Your task to perform on an android device: Open Maps and search for coffee Image 0: 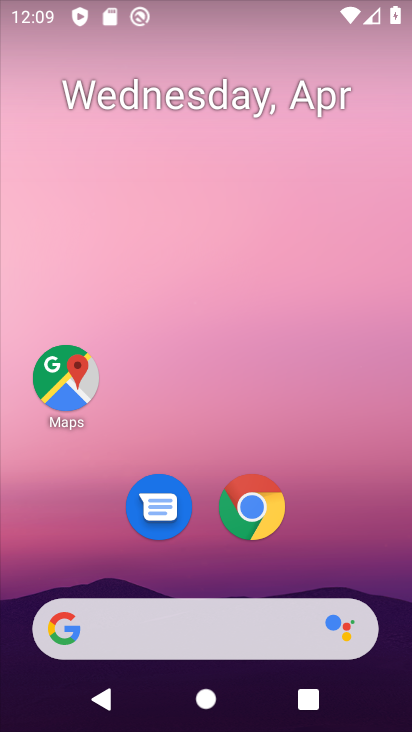
Step 0: click (75, 380)
Your task to perform on an android device: Open Maps and search for coffee Image 1: 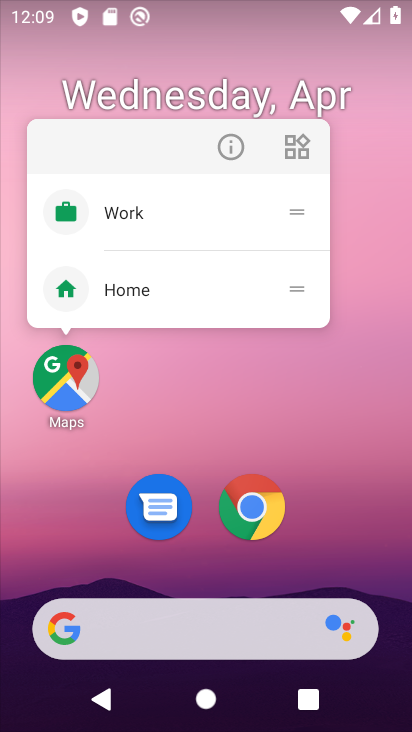
Step 1: click (75, 380)
Your task to perform on an android device: Open Maps and search for coffee Image 2: 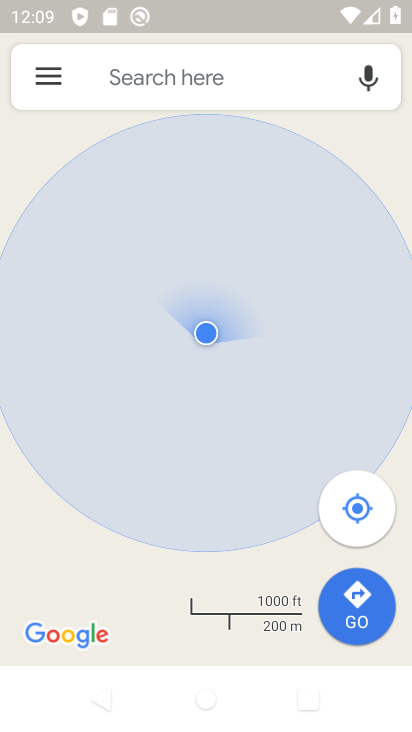
Step 2: click (275, 79)
Your task to perform on an android device: Open Maps and search for coffee Image 3: 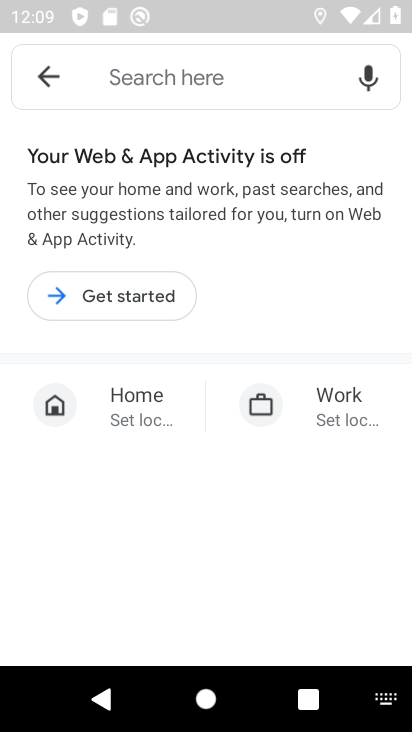
Step 3: type "coffee"
Your task to perform on an android device: Open Maps and search for coffee Image 4: 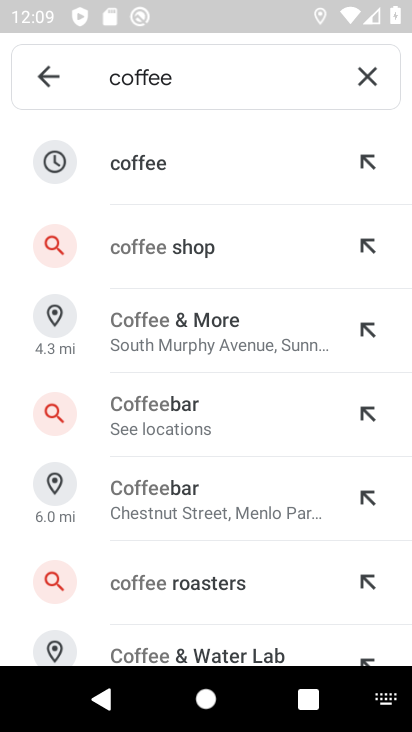
Step 4: click (208, 171)
Your task to perform on an android device: Open Maps and search for coffee Image 5: 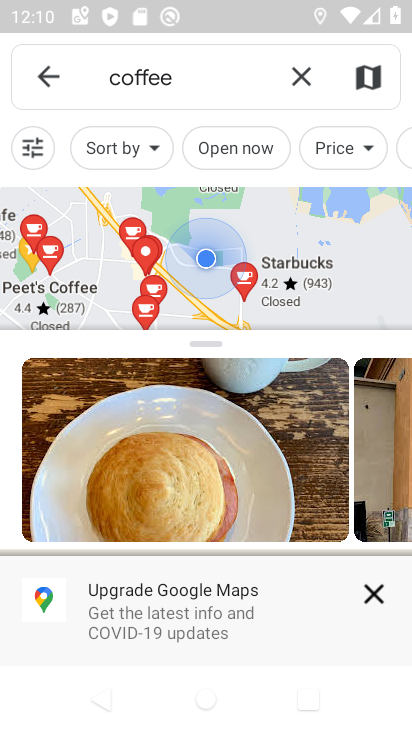
Step 5: task complete